Your task to perform on an android device: change the clock style Image 0: 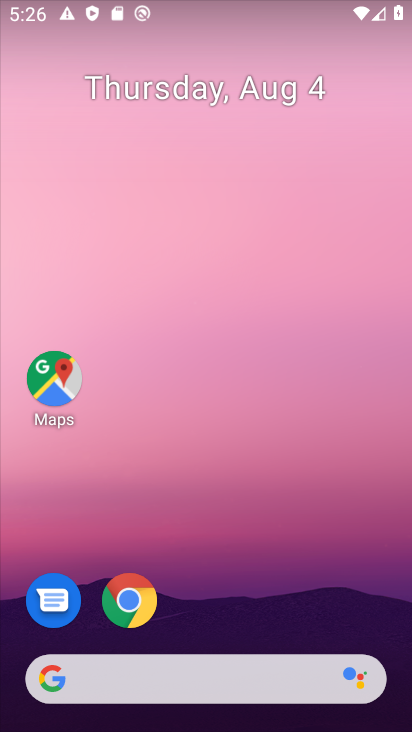
Step 0: drag from (246, 604) to (352, 23)
Your task to perform on an android device: change the clock style Image 1: 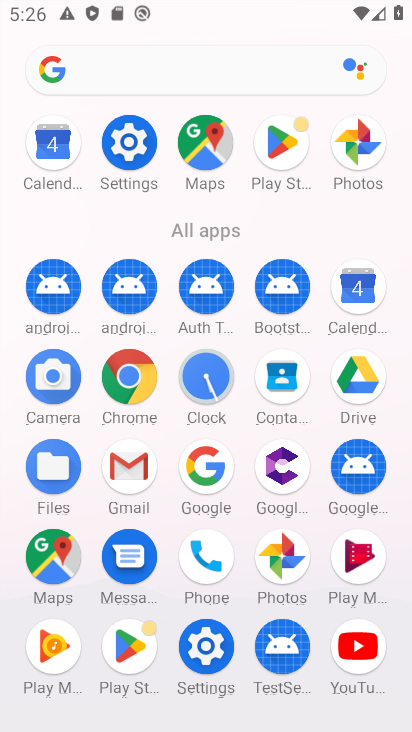
Step 1: click (188, 358)
Your task to perform on an android device: change the clock style Image 2: 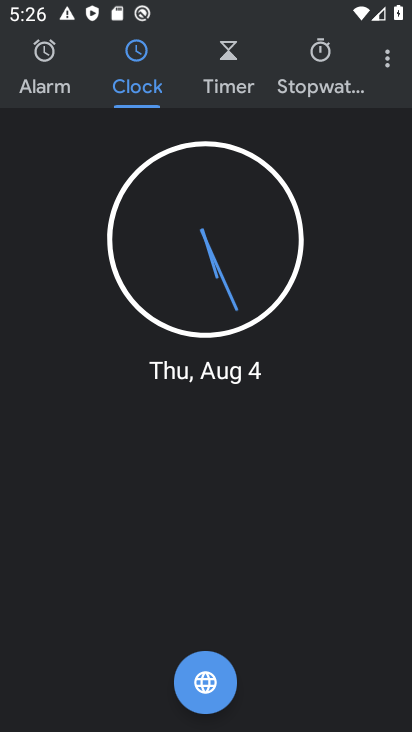
Step 2: click (399, 51)
Your task to perform on an android device: change the clock style Image 3: 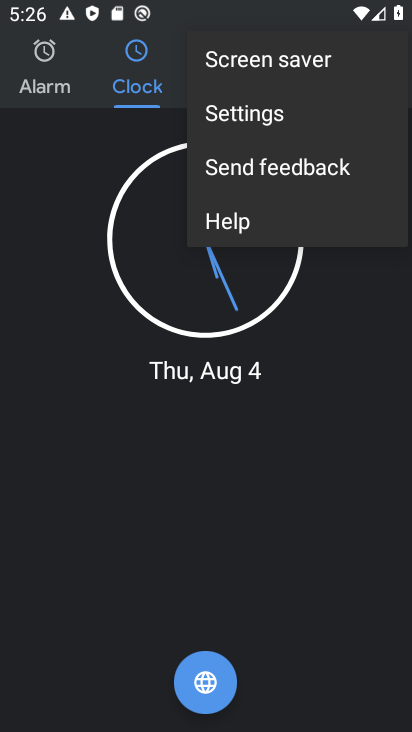
Step 3: click (236, 105)
Your task to perform on an android device: change the clock style Image 4: 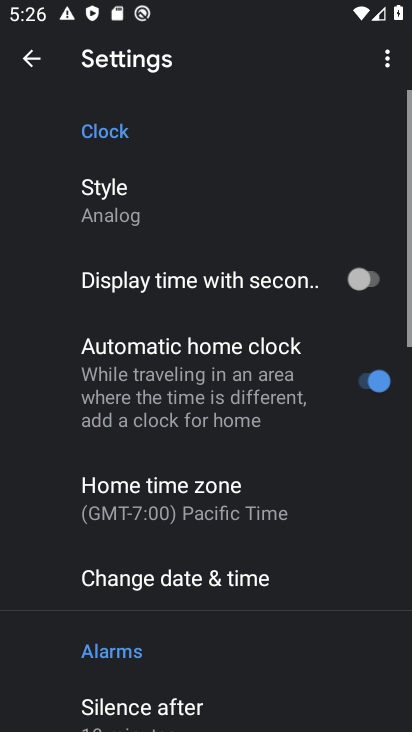
Step 4: click (97, 212)
Your task to perform on an android device: change the clock style Image 5: 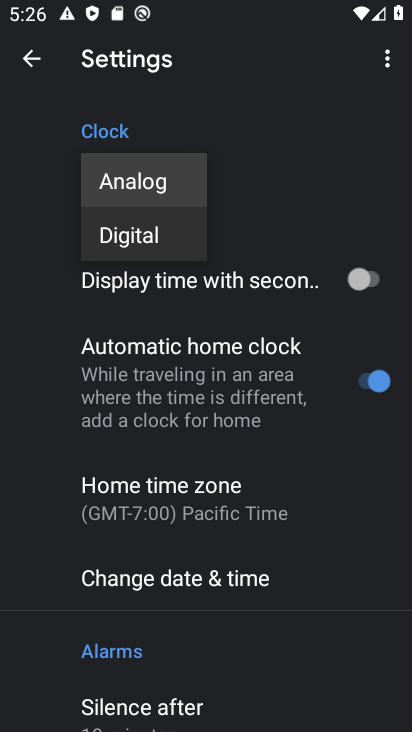
Step 5: click (110, 239)
Your task to perform on an android device: change the clock style Image 6: 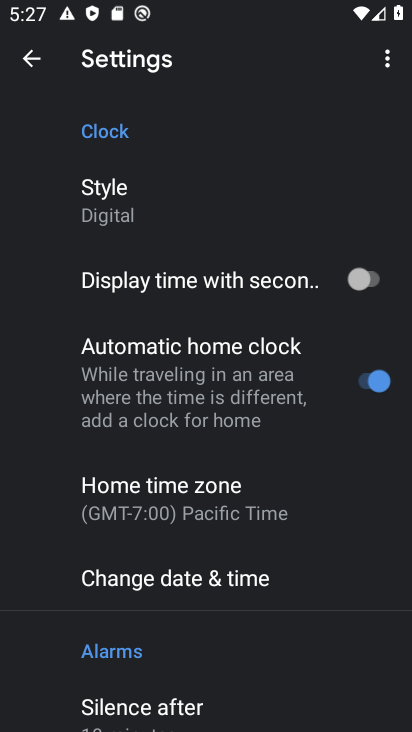
Step 6: task complete